Your task to perform on an android device: Open network settings Image 0: 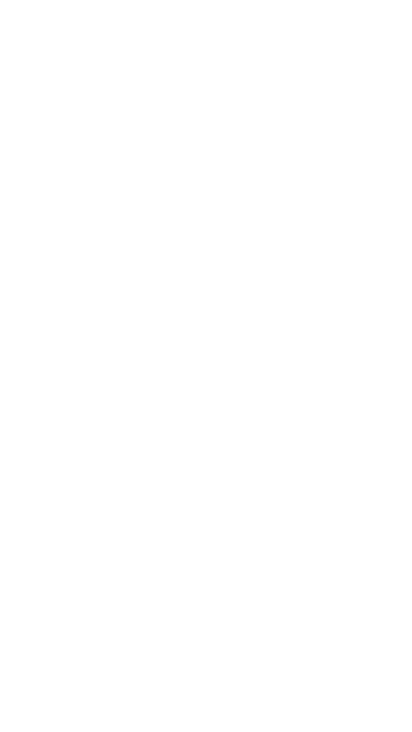
Step 0: press home button
Your task to perform on an android device: Open network settings Image 1: 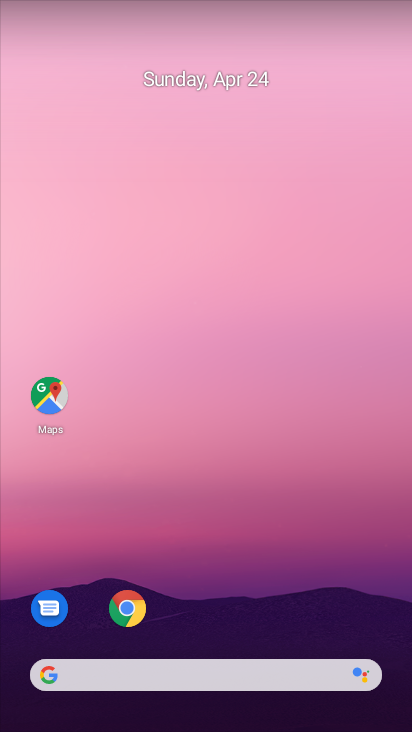
Step 1: drag from (299, 556) to (266, 104)
Your task to perform on an android device: Open network settings Image 2: 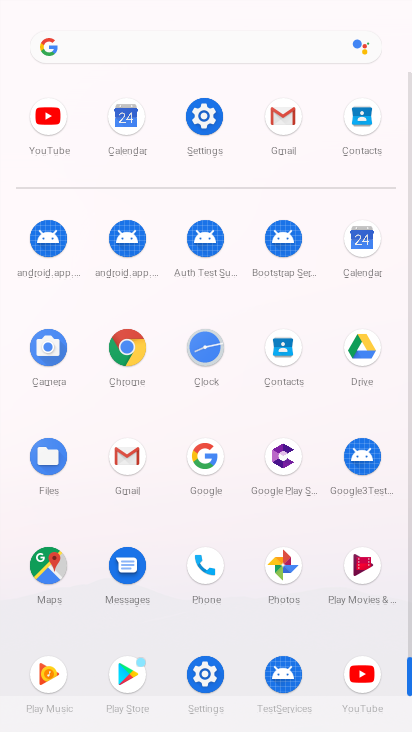
Step 2: click (205, 109)
Your task to perform on an android device: Open network settings Image 3: 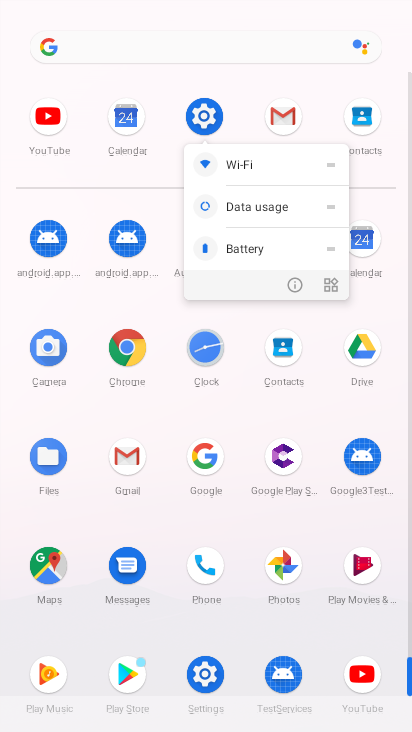
Step 3: click (207, 114)
Your task to perform on an android device: Open network settings Image 4: 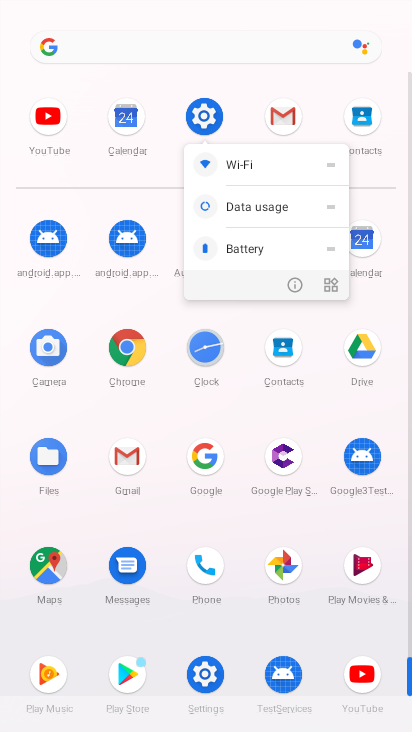
Step 4: click (207, 110)
Your task to perform on an android device: Open network settings Image 5: 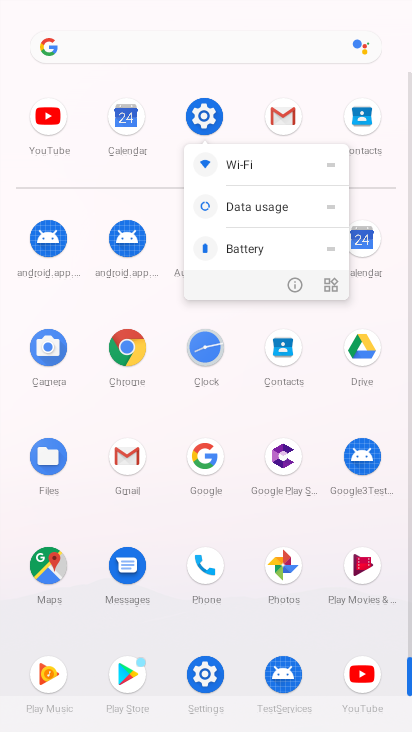
Step 5: click (207, 110)
Your task to perform on an android device: Open network settings Image 6: 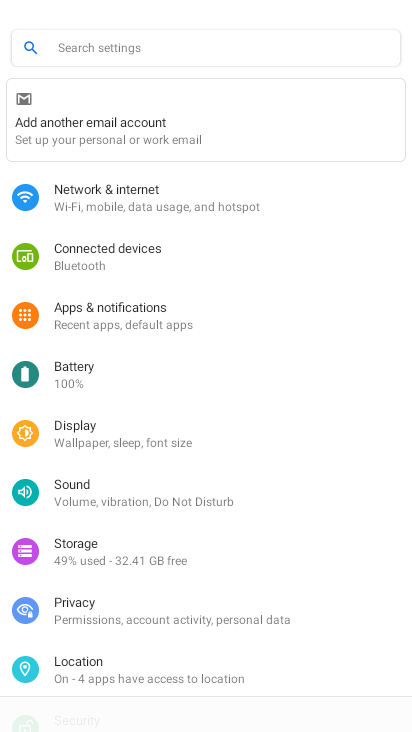
Step 6: click (207, 189)
Your task to perform on an android device: Open network settings Image 7: 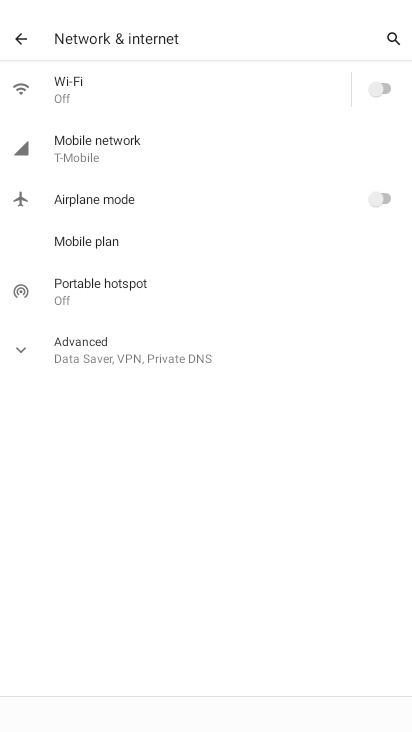
Step 7: task complete